Your task to perform on an android device: install app "Adobe Acrobat Reader: Edit PDF" Image 0: 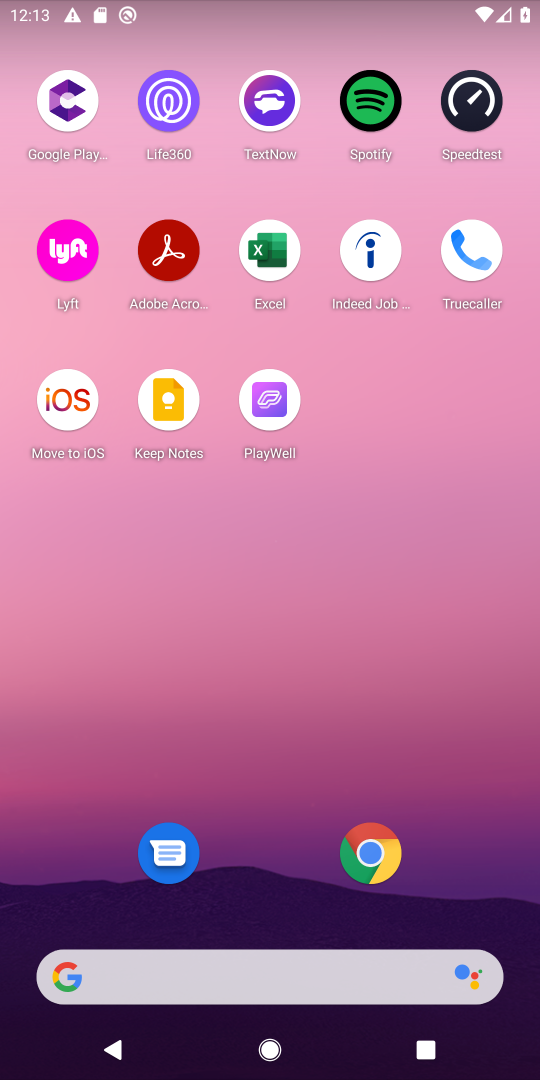
Step 0: drag from (238, 890) to (224, 275)
Your task to perform on an android device: install app "Adobe Acrobat Reader: Edit PDF" Image 1: 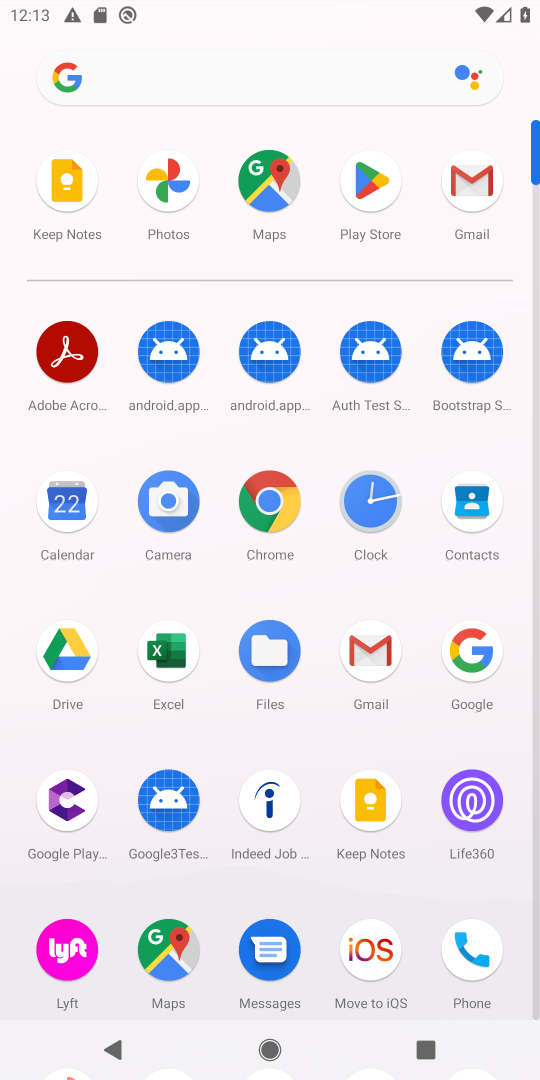
Step 1: click (356, 181)
Your task to perform on an android device: install app "Adobe Acrobat Reader: Edit PDF" Image 2: 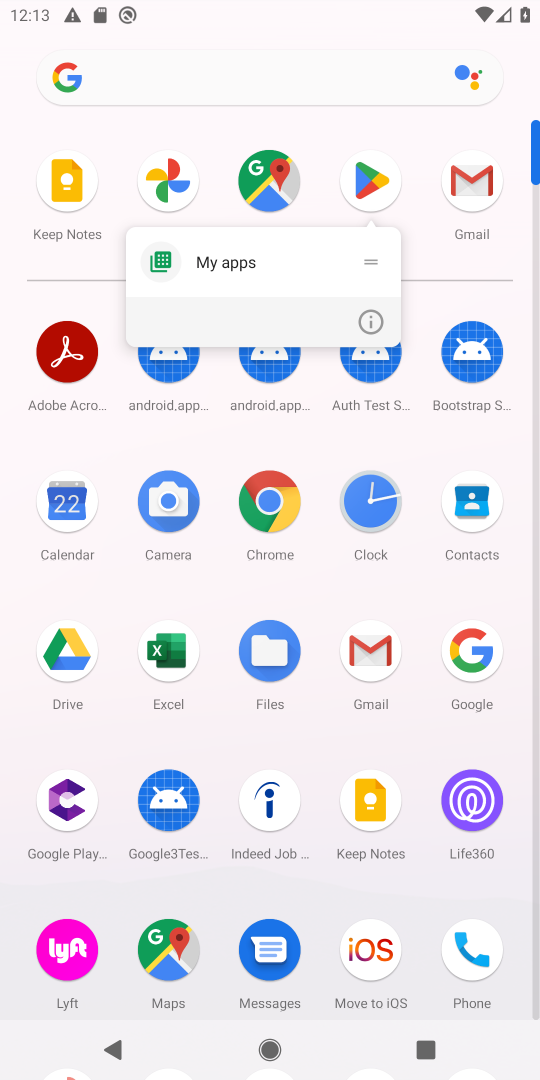
Step 2: click (371, 167)
Your task to perform on an android device: install app "Adobe Acrobat Reader: Edit PDF" Image 3: 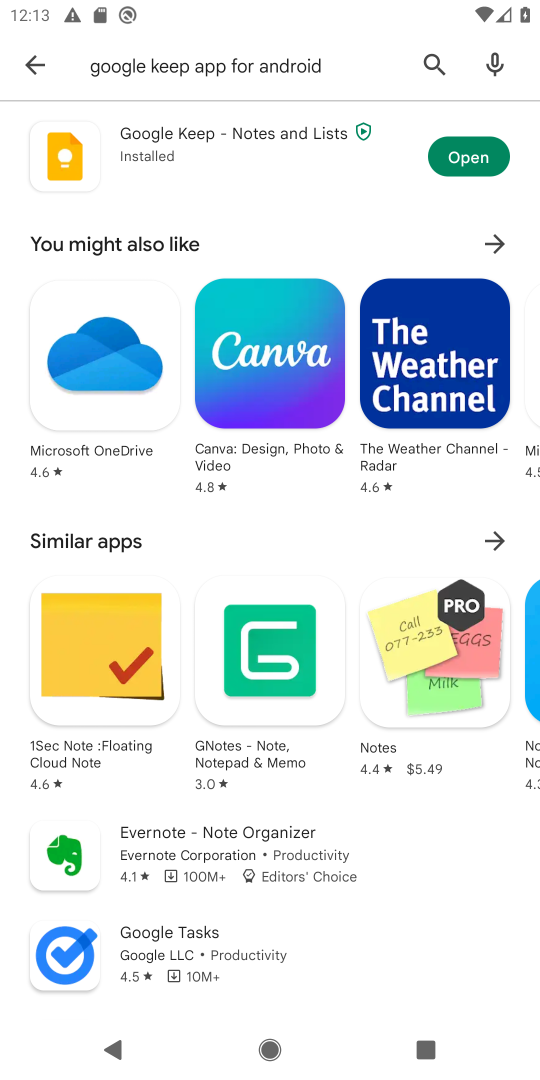
Step 3: click (44, 50)
Your task to perform on an android device: install app "Adobe Acrobat Reader: Edit PDF" Image 4: 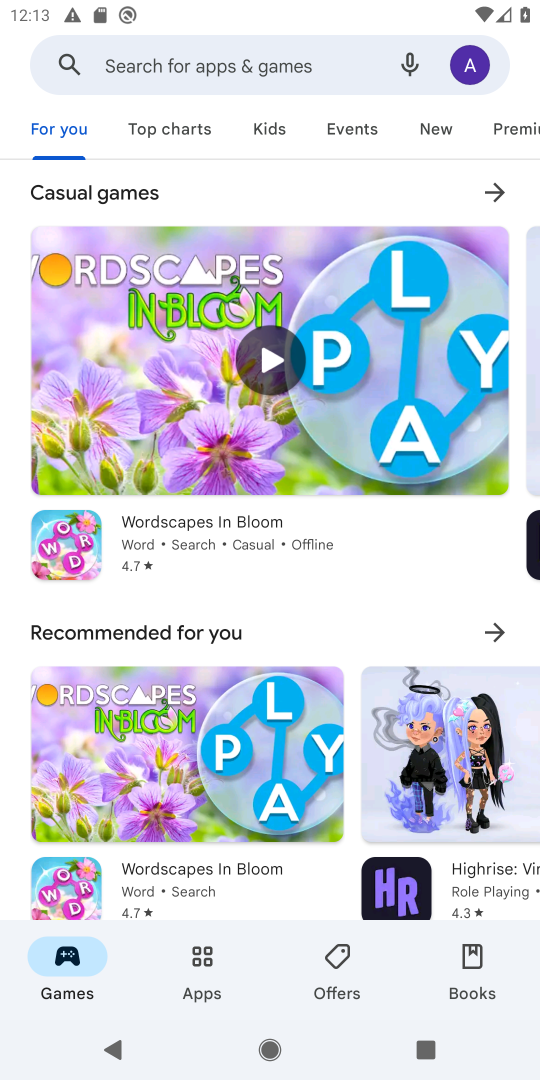
Step 4: click (306, 49)
Your task to perform on an android device: install app "Adobe Acrobat Reader: Edit PDF" Image 5: 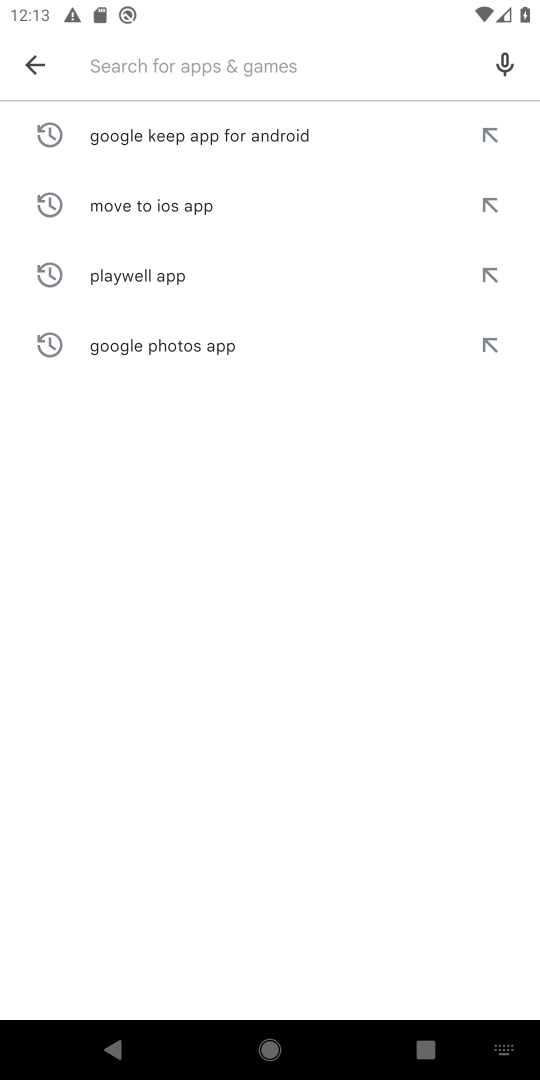
Step 5: type "Adobe Acrobat Reader: Edit PDF "
Your task to perform on an android device: install app "Adobe Acrobat Reader: Edit PDF" Image 6: 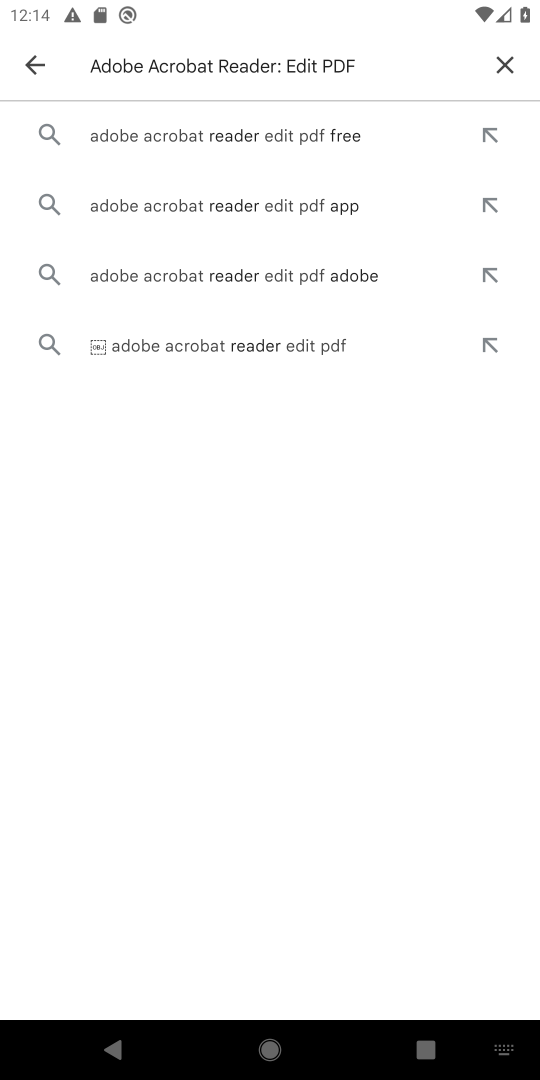
Step 6: click (213, 136)
Your task to perform on an android device: install app "Adobe Acrobat Reader: Edit PDF" Image 7: 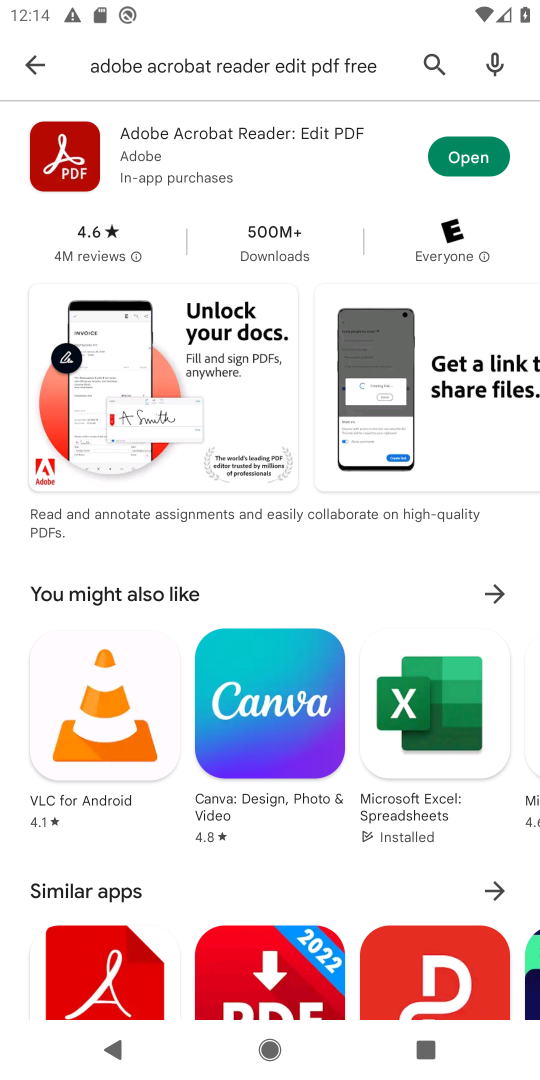
Step 7: click (461, 166)
Your task to perform on an android device: install app "Adobe Acrobat Reader: Edit PDF" Image 8: 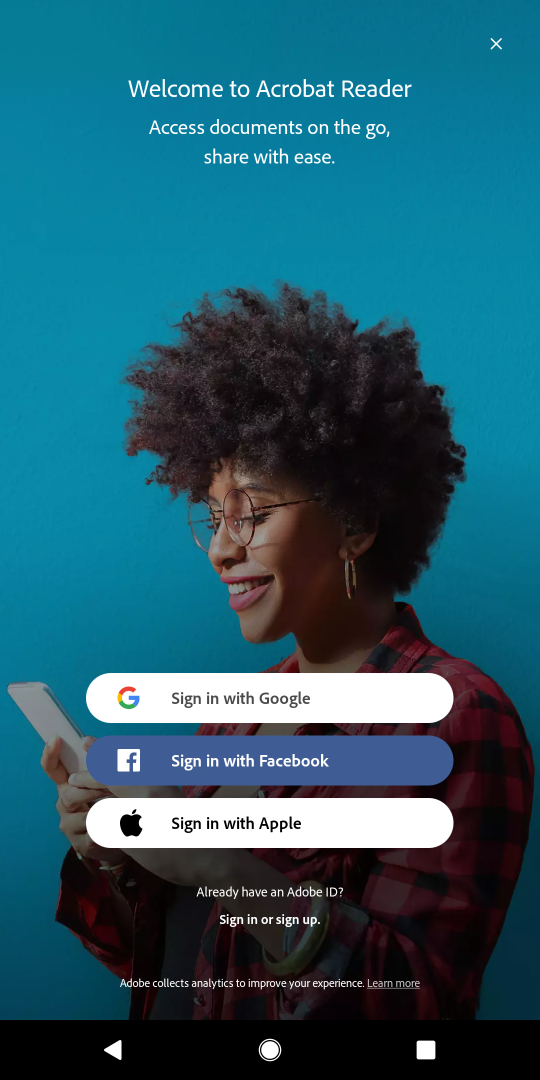
Step 8: task complete